Your task to perform on an android device: Go to network settings Image 0: 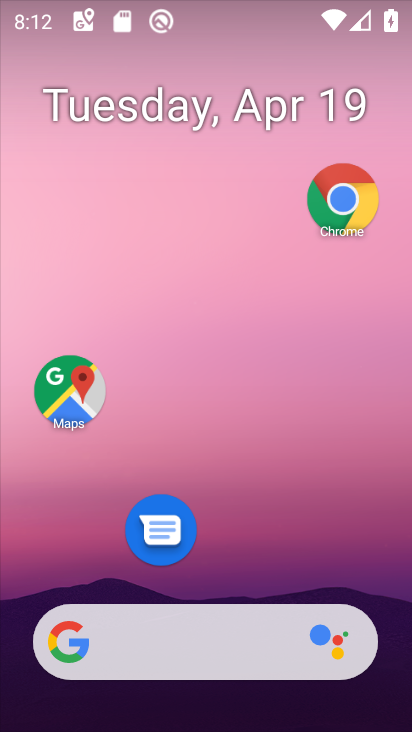
Step 0: drag from (227, 578) to (397, 72)
Your task to perform on an android device: Go to network settings Image 1: 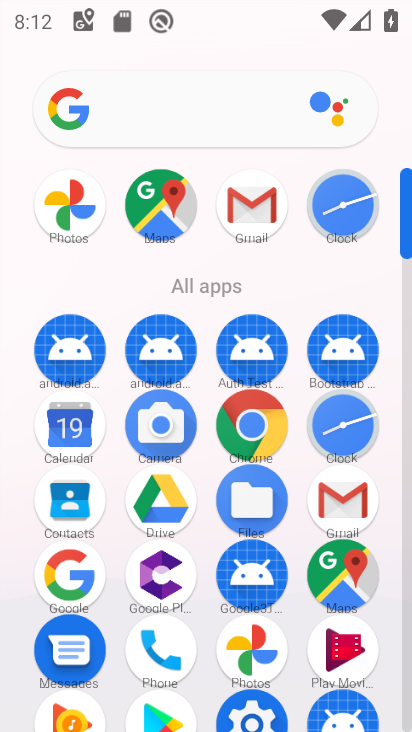
Step 1: click (255, 727)
Your task to perform on an android device: Go to network settings Image 2: 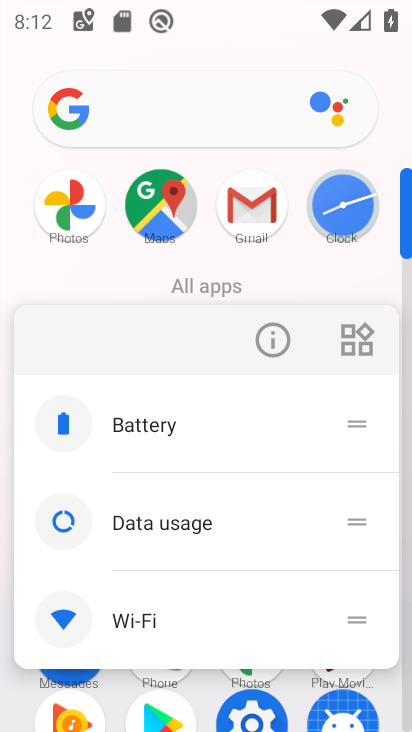
Step 2: click (272, 343)
Your task to perform on an android device: Go to network settings Image 3: 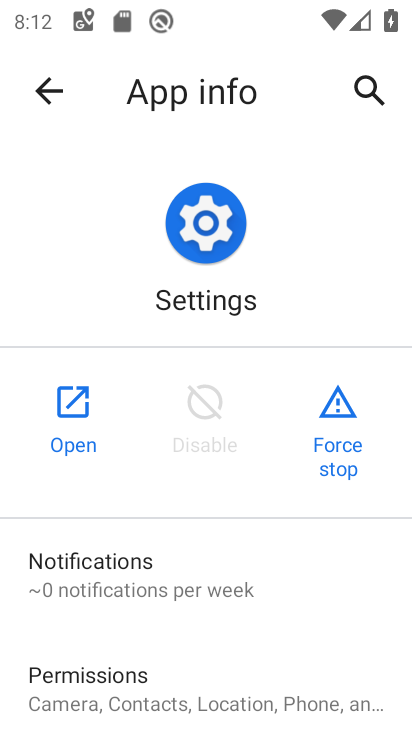
Step 3: click (75, 413)
Your task to perform on an android device: Go to network settings Image 4: 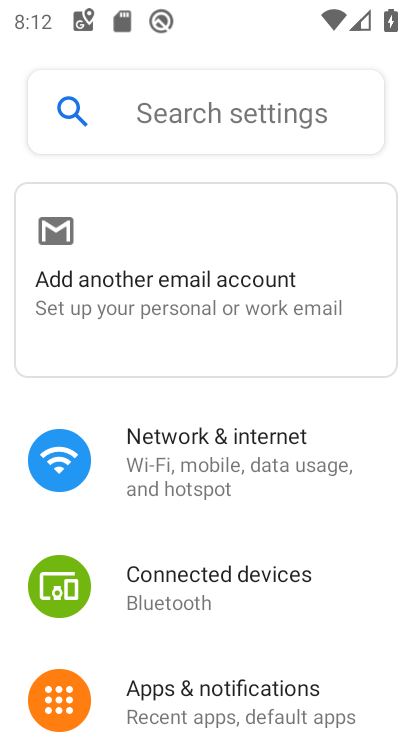
Step 4: click (173, 475)
Your task to perform on an android device: Go to network settings Image 5: 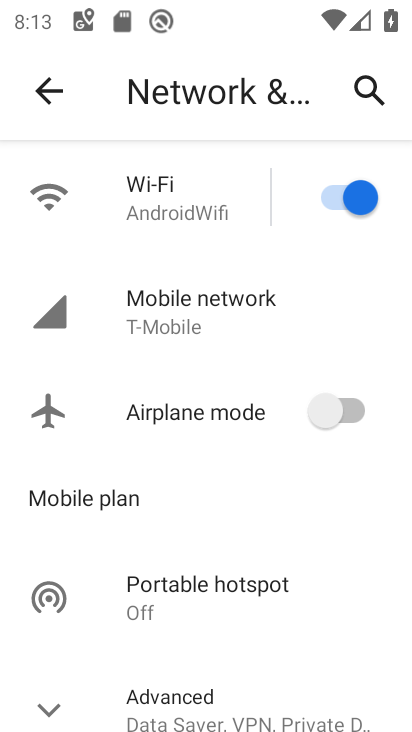
Step 5: click (192, 304)
Your task to perform on an android device: Go to network settings Image 6: 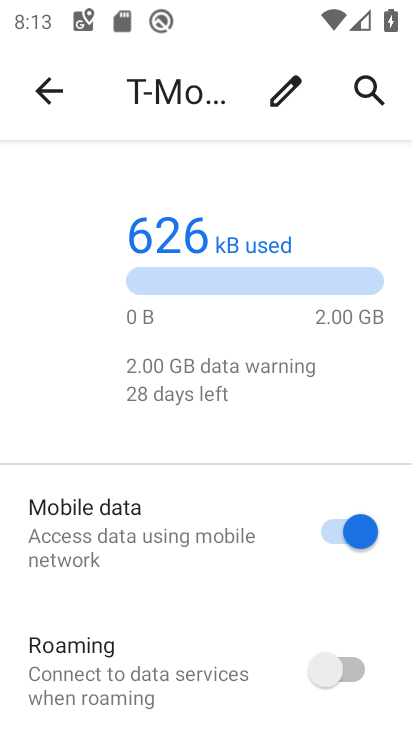
Step 6: drag from (202, 537) to (255, 286)
Your task to perform on an android device: Go to network settings Image 7: 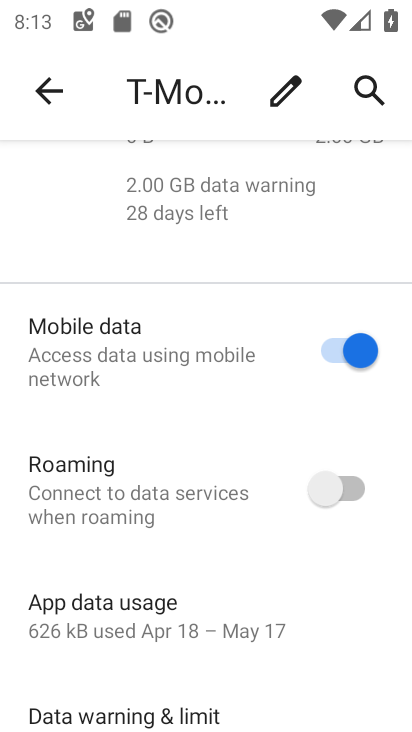
Step 7: drag from (215, 290) to (262, 665)
Your task to perform on an android device: Go to network settings Image 8: 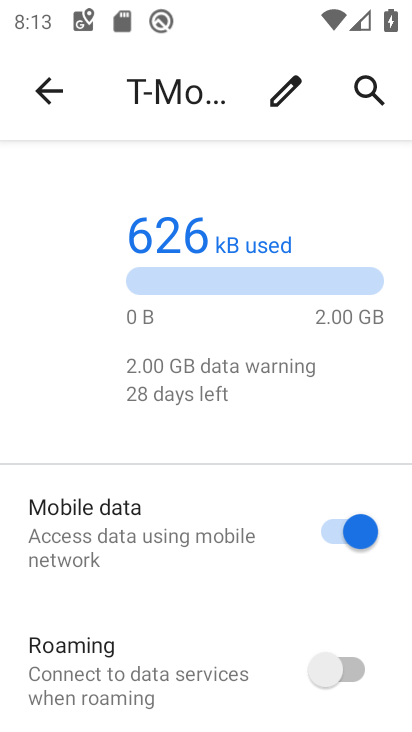
Step 8: drag from (220, 623) to (214, 211)
Your task to perform on an android device: Go to network settings Image 9: 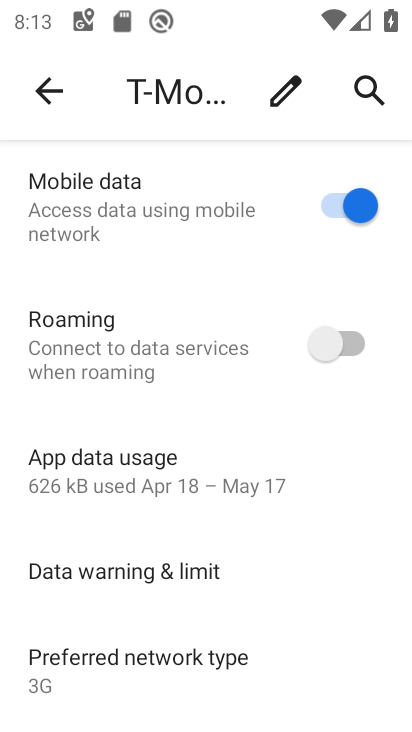
Step 9: drag from (220, 517) to (224, 210)
Your task to perform on an android device: Go to network settings Image 10: 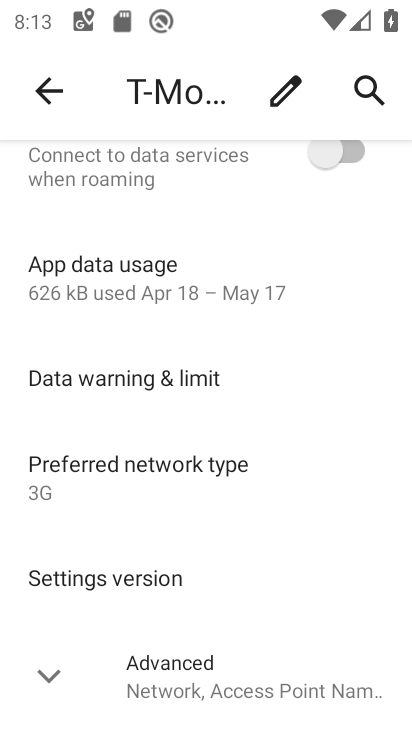
Step 10: drag from (192, 236) to (371, 726)
Your task to perform on an android device: Go to network settings Image 11: 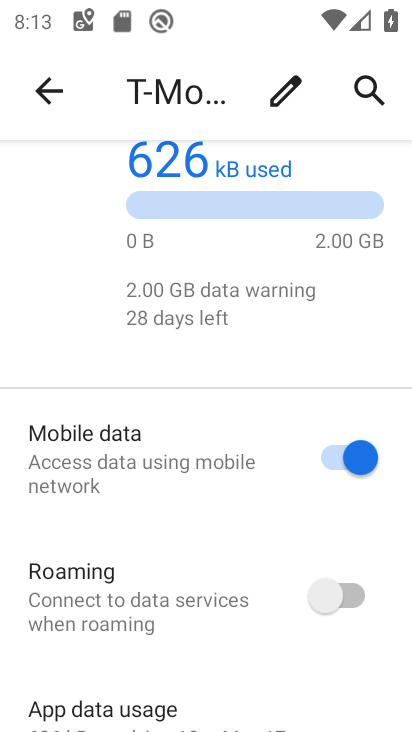
Step 11: drag from (147, 352) to (251, 658)
Your task to perform on an android device: Go to network settings Image 12: 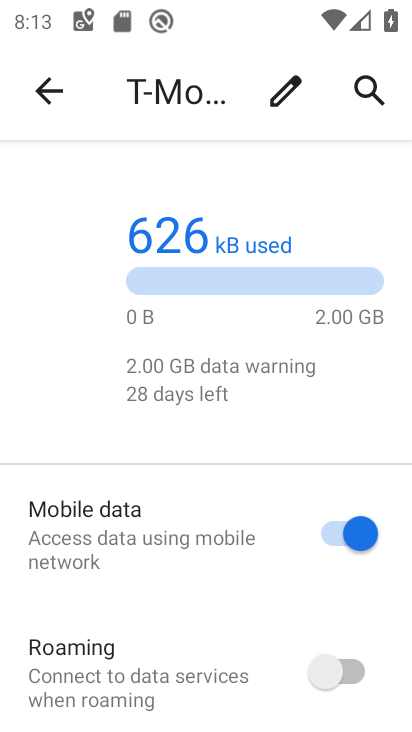
Step 12: drag from (210, 302) to (270, 557)
Your task to perform on an android device: Go to network settings Image 13: 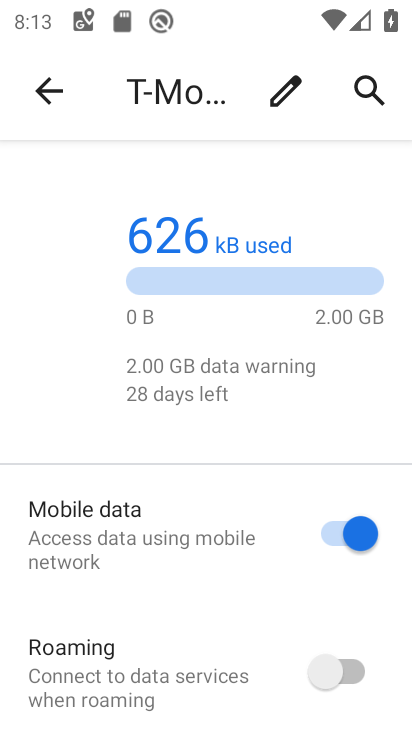
Step 13: click (211, 243)
Your task to perform on an android device: Go to network settings Image 14: 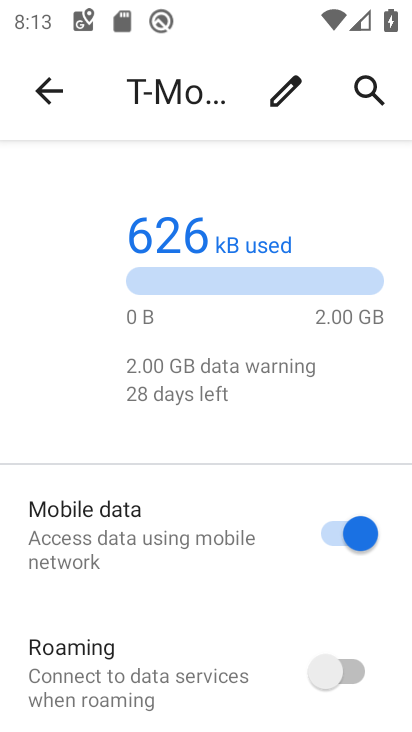
Step 14: click (238, 236)
Your task to perform on an android device: Go to network settings Image 15: 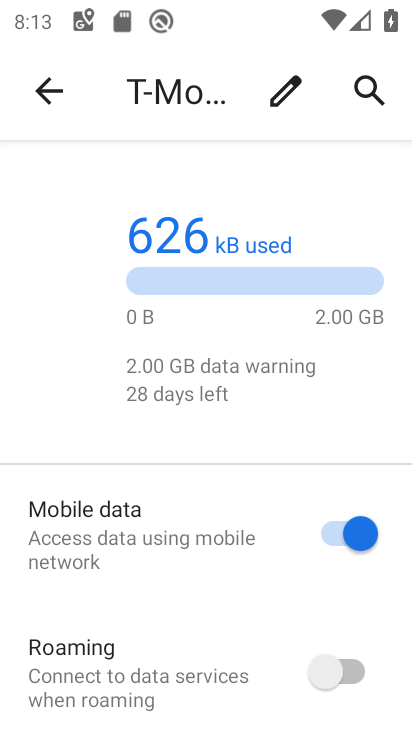
Step 15: click (240, 252)
Your task to perform on an android device: Go to network settings Image 16: 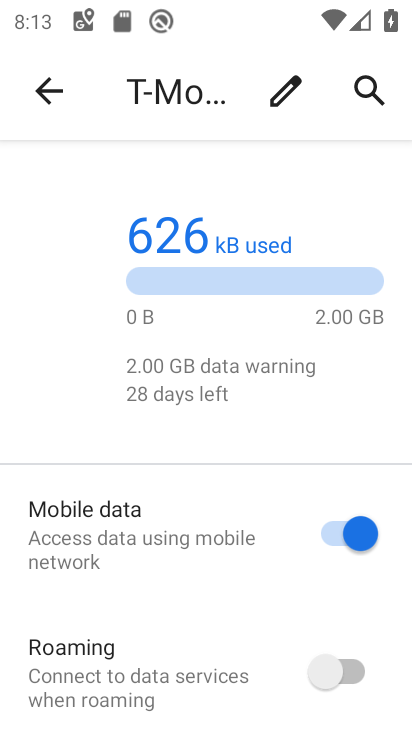
Step 16: click (228, 247)
Your task to perform on an android device: Go to network settings Image 17: 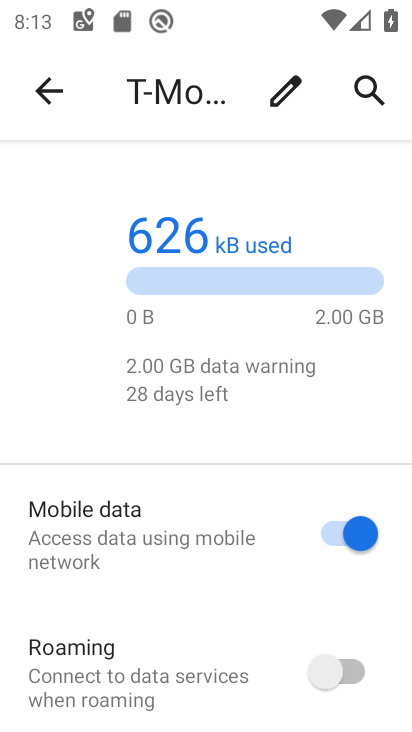
Step 17: task complete